Your task to perform on an android device: turn off notifications settings in the gmail app Image 0: 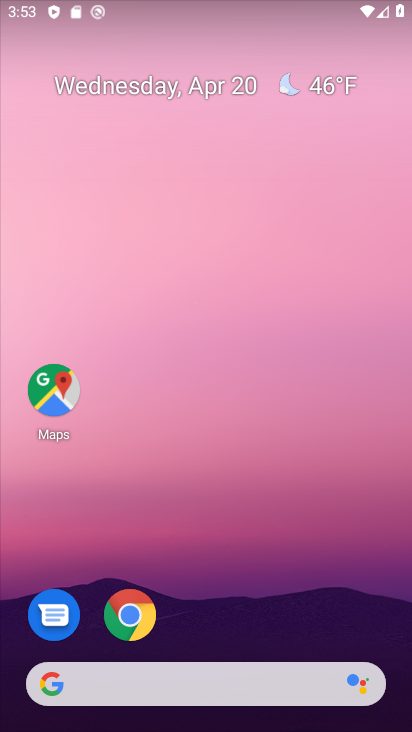
Step 0: drag from (273, 473) to (311, 161)
Your task to perform on an android device: turn off notifications settings in the gmail app Image 1: 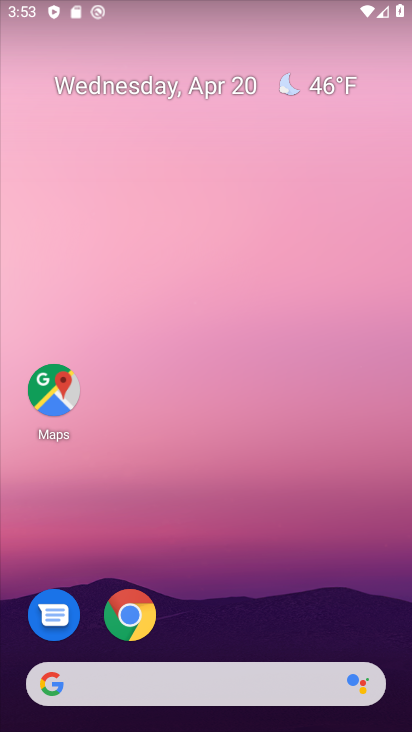
Step 1: drag from (224, 533) to (333, 3)
Your task to perform on an android device: turn off notifications settings in the gmail app Image 2: 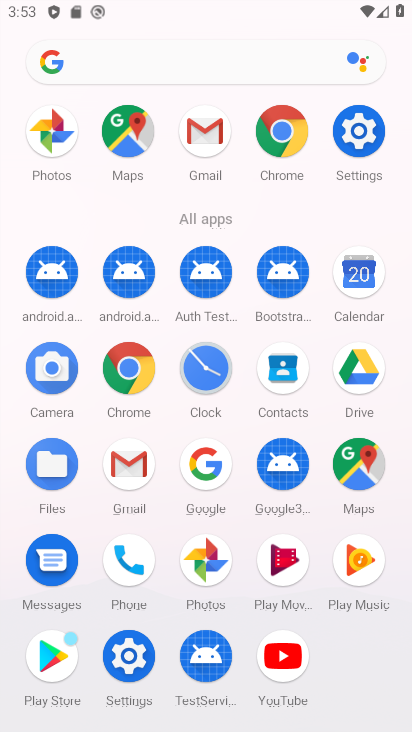
Step 2: click (200, 125)
Your task to perform on an android device: turn off notifications settings in the gmail app Image 3: 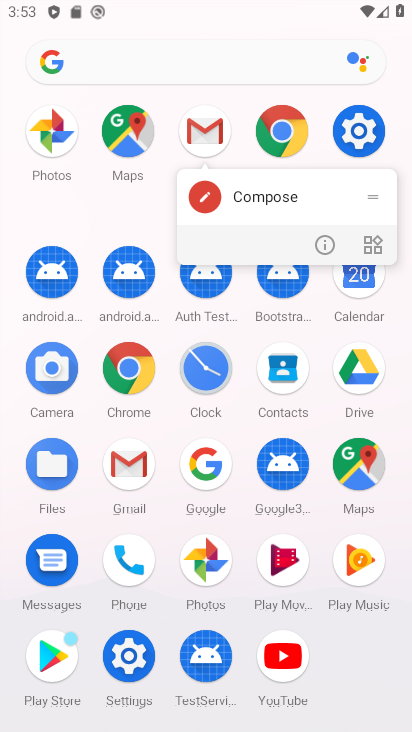
Step 3: click (327, 239)
Your task to perform on an android device: turn off notifications settings in the gmail app Image 4: 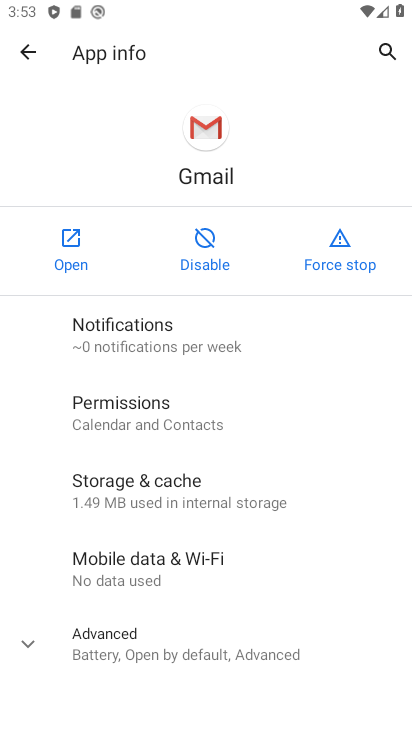
Step 4: click (203, 336)
Your task to perform on an android device: turn off notifications settings in the gmail app Image 5: 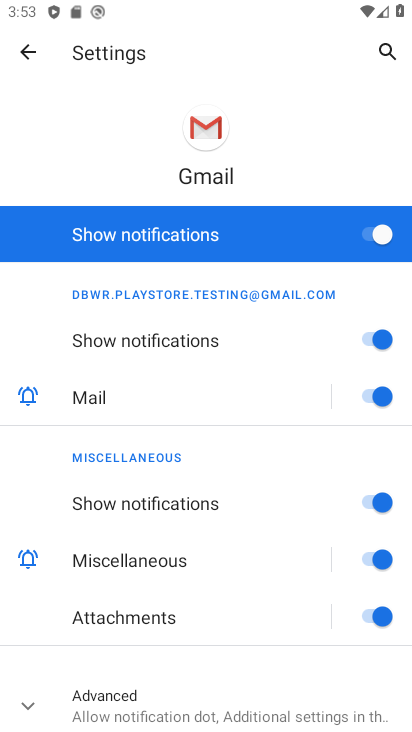
Step 5: click (385, 230)
Your task to perform on an android device: turn off notifications settings in the gmail app Image 6: 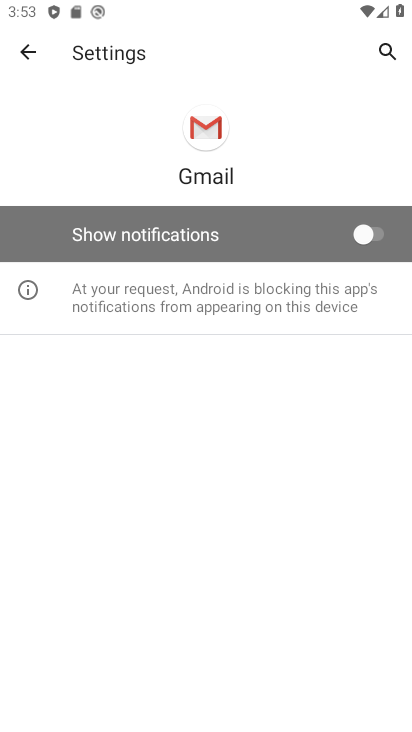
Step 6: task complete